Your task to perform on an android device: Add "razer blade" to the cart on target Image 0: 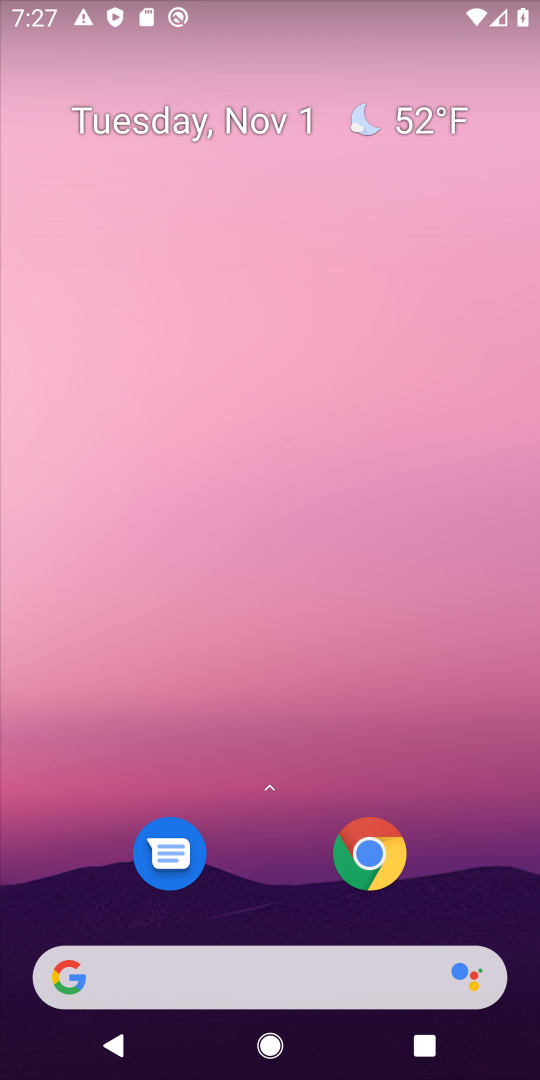
Step 0: click (304, 978)
Your task to perform on an android device: Add "razer blade" to the cart on target Image 1: 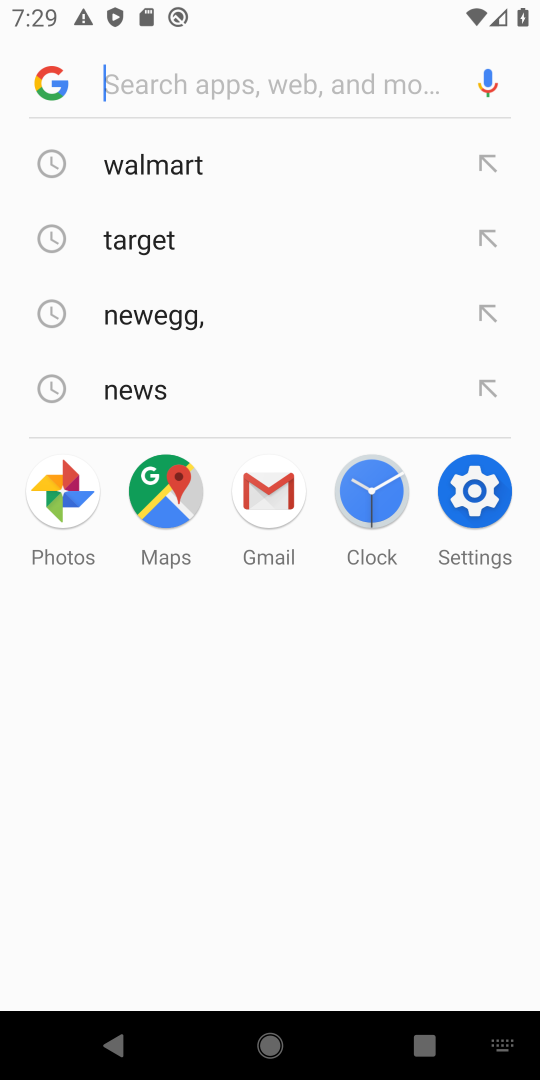
Step 1: click (234, 245)
Your task to perform on an android device: Add "razer blade" to the cart on target Image 2: 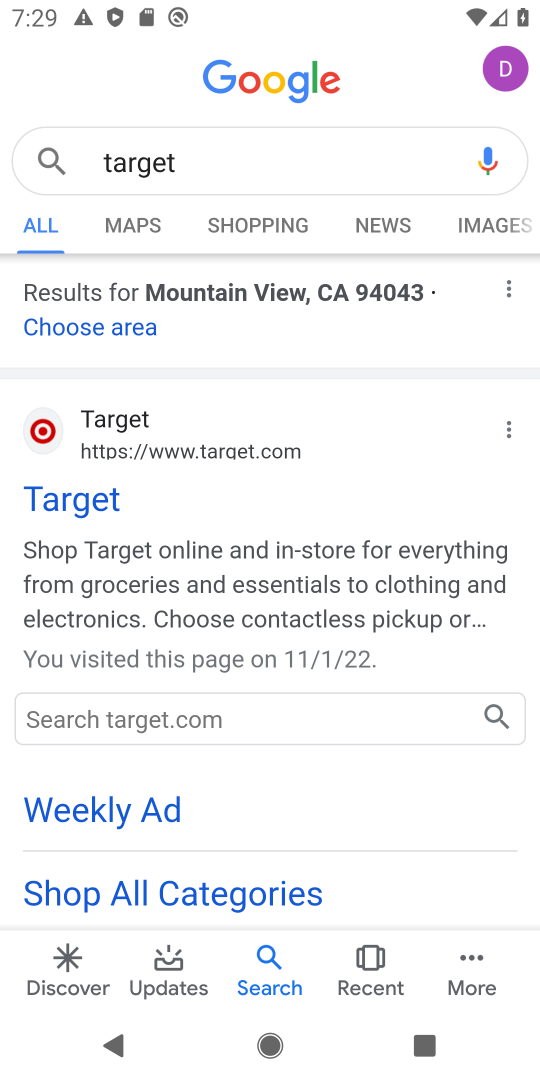
Step 2: click (108, 435)
Your task to perform on an android device: Add "razer blade" to the cart on target Image 3: 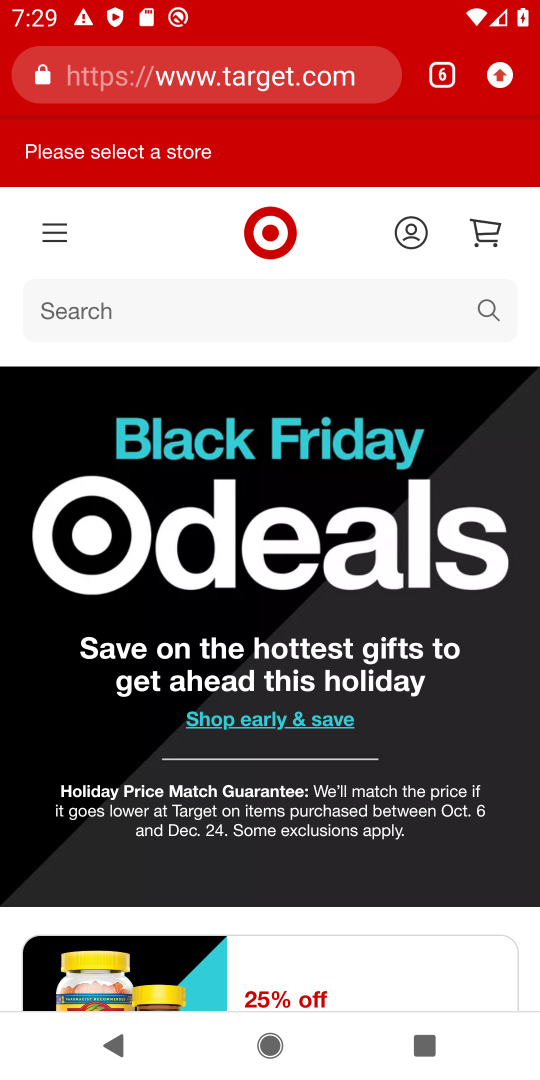
Step 3: click (278, 336)
Your task to perform on an android device: Add "razer blade" to the cart on target Image 4: 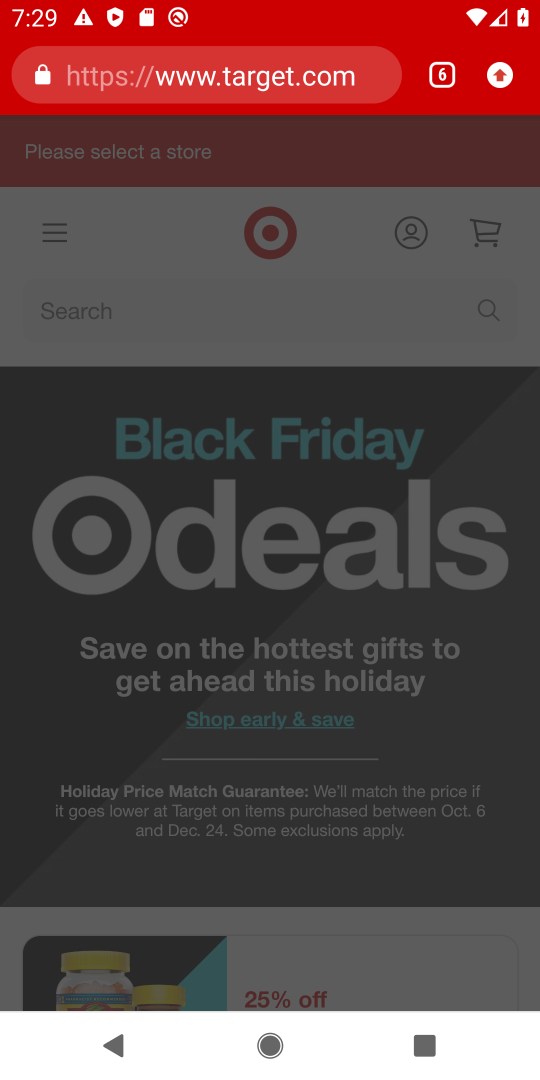
Step 4: click (275, 332)
Your task to perform on an android device: Add "razer blade" to the cart on target Image 5: 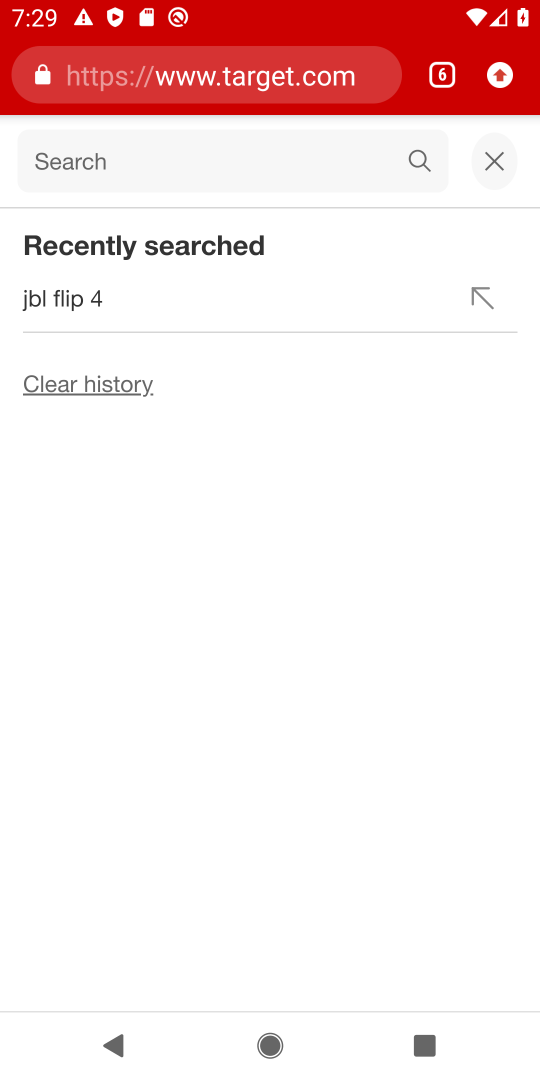
Step 5: type "razer blade"
Your task to perform on an android device: Add "razer blade" to the cart on target Image 6: 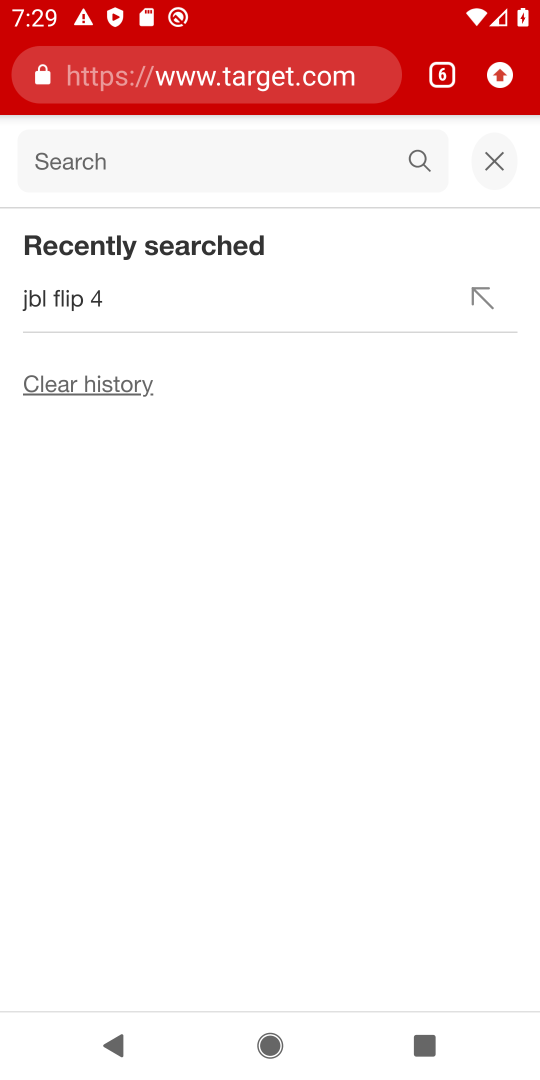
Step 6: click (146, 163)
Your task to perform on an android device: Add "razer blade" to the cart on target Image 7: 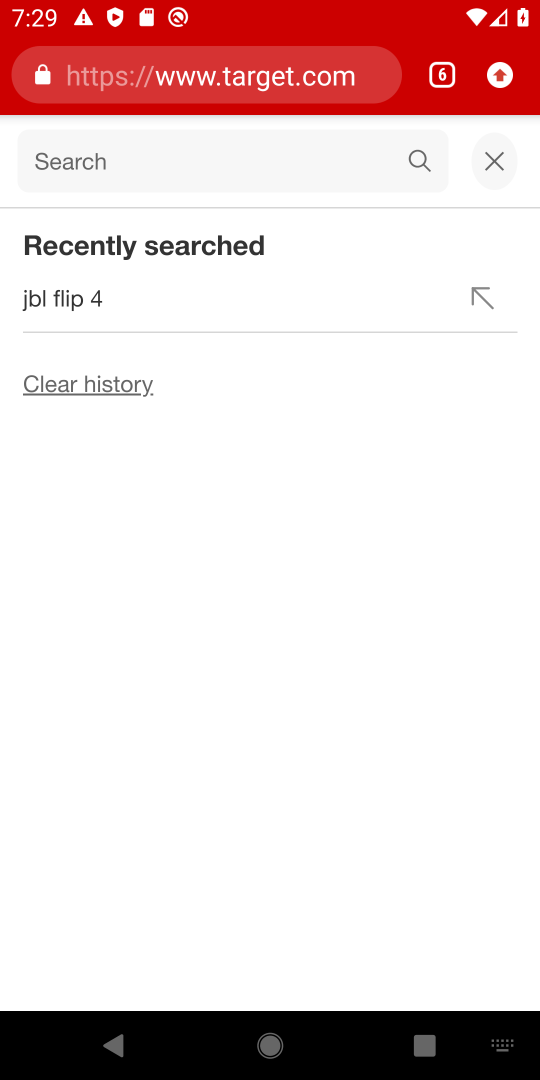
Step 7: click (146, 163)
Your task to perform on an android device: Add "razer blade" to the cart on target Image 8: 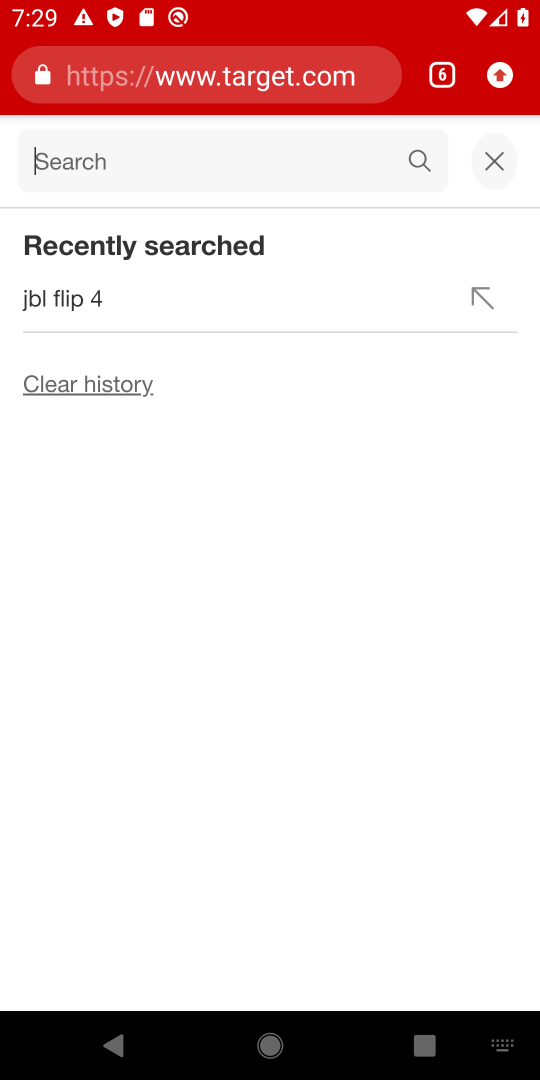
Step 8: type "razer blade"
Your task to perform on an android device: Add "razer blade" to the cart on target Image 9: 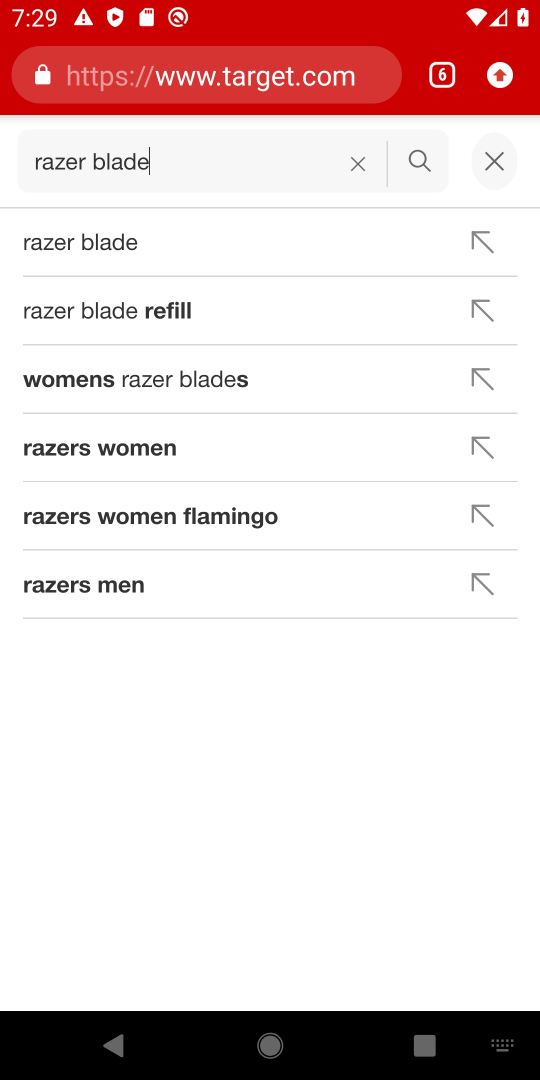
Step 9: click (171, 236)
Your task to perform on an android device: Add "razer blade" to the cart on target Image 10: 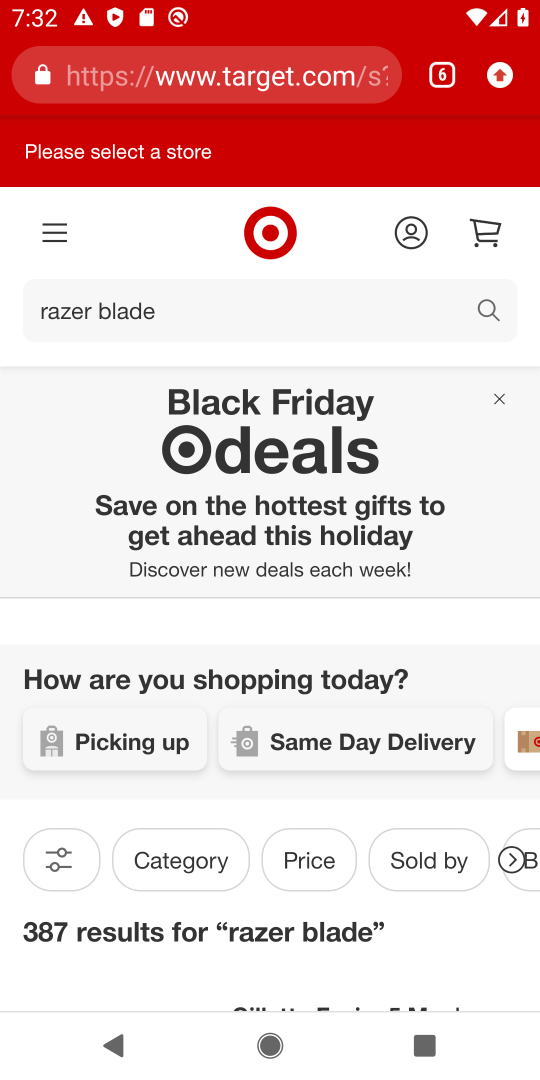
Step 10: task complete